Your task to perform on an android device: Do I have any events tomorrow? Image 0: 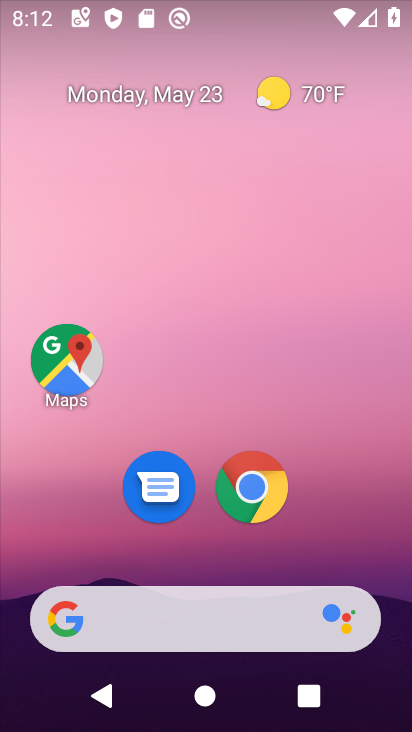
Step 0: click (264, 161)
Your task to perform on an android device: Do I have any events tomorrow? Image 1: 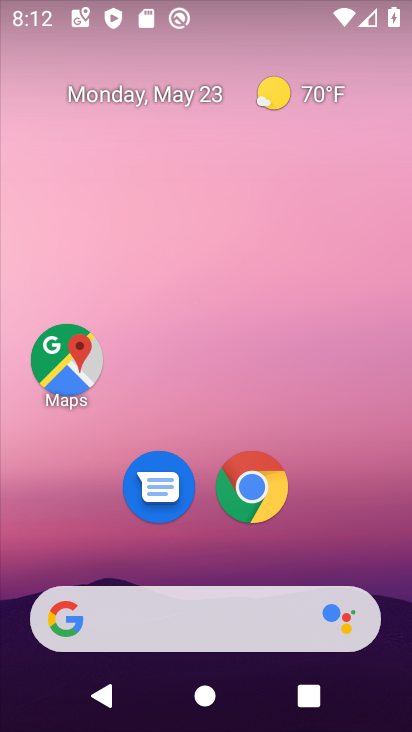
Step 1: drag from (210, 589) to (250, 270)
Your task to perform on an android device: Do I have any events tomorrow? Image 2: 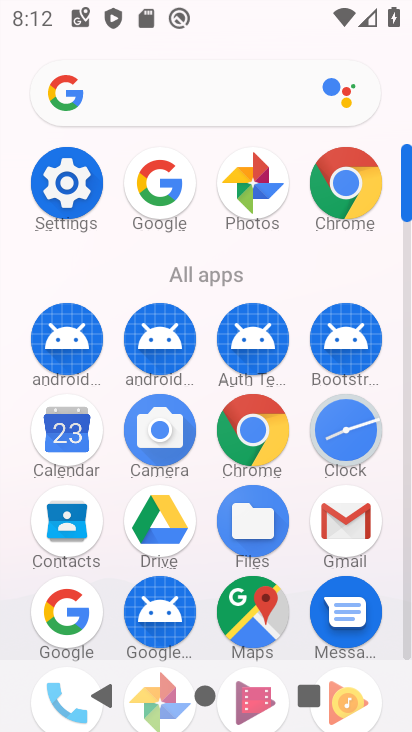
Step 2: click (67, 435)
Your task to perform on an android device: Do I have any events tomorrow? Image 3: 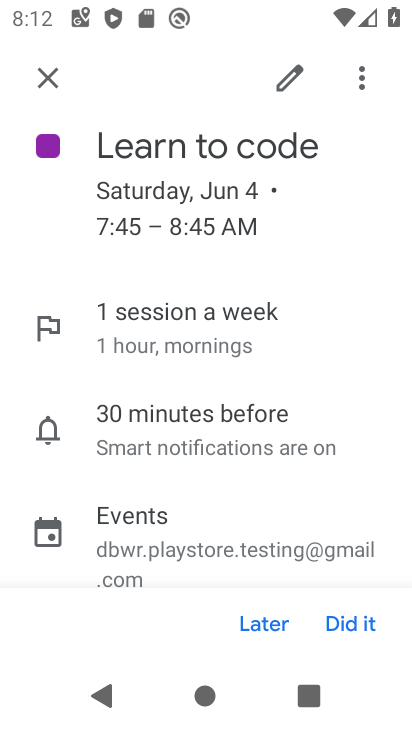
Step 3: click (55, 78)
Your task to perform on an android device: Do I have any events tomorrow? Image 4: 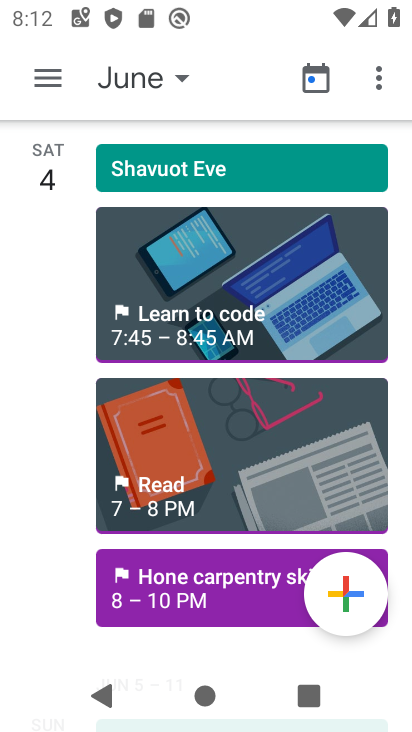
Step 4: click (132, 82)
Your task to perform on an android device: Do I have any events tomorrow? Image 5: 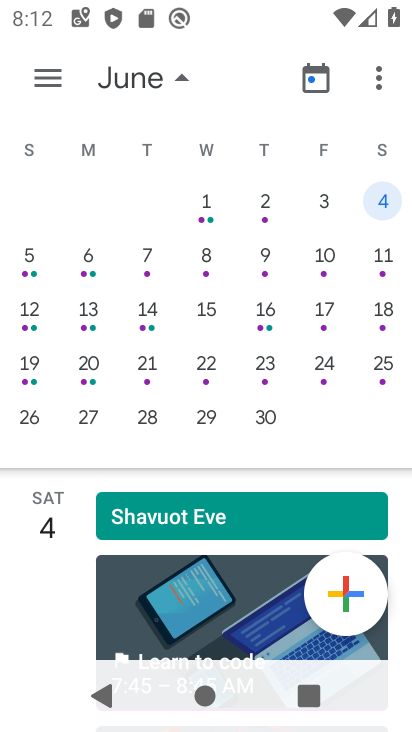
Step 5: drag from (82, 238) to (395, 325)
Your task to perform on an android device: Do I have any events tomorrow? Image 6: 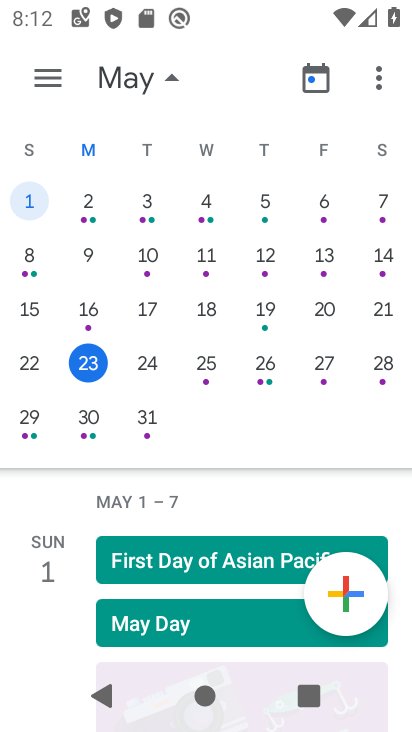
Step 6: click (150, 366)
Your task to perform on an android device: Do I have any events tomorrow? Image 7: 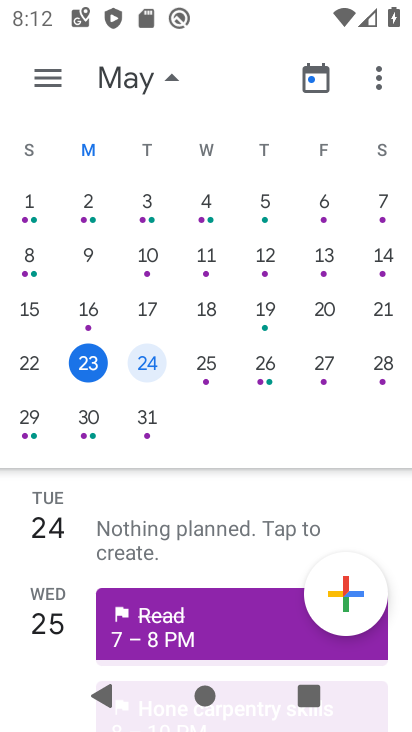
Step 7: task complete